Your task to perform on an android device: turn off picture-in-picture Image 0: 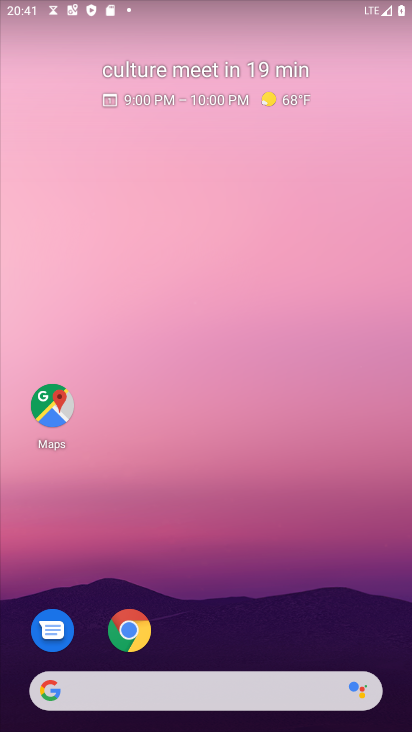
Step 0: click (133, 629)
Your task to perform on an android device: turn off picture-in-picture Image 1: 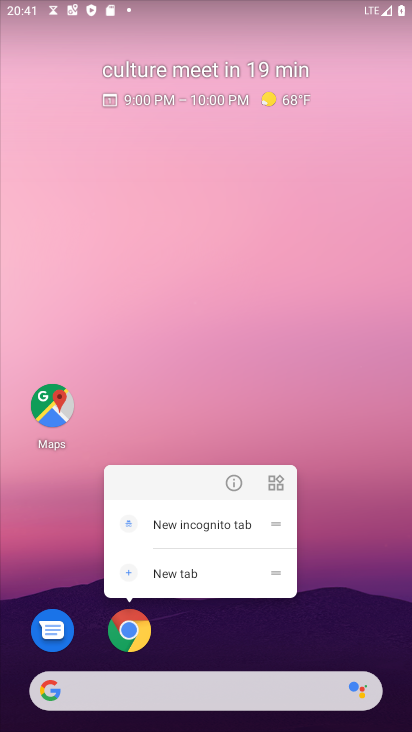
Step 1: click (231, 477)
Your task to perform on an android device: turn off picture-in-picture Image 2: 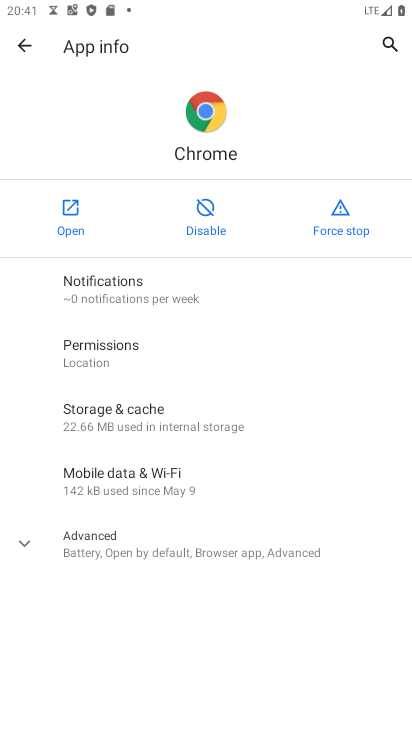
Step 2: click (169, 553)
Your task to perform on an android device: turn off picture-in-picture Image 3: 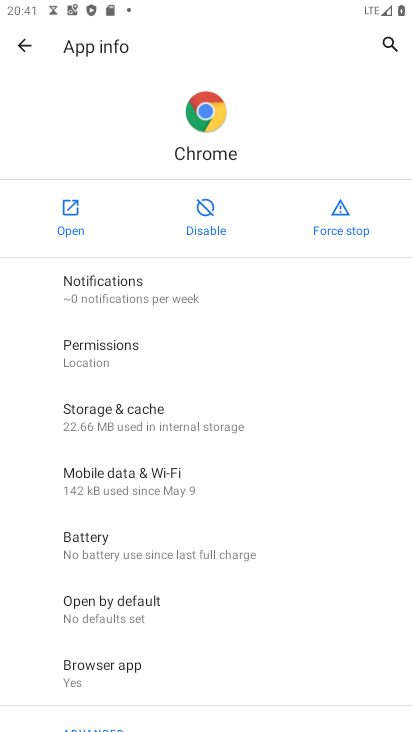
Step 3: drag from (173, 646) to (202, 511)
Your task to perform on an android device: turn off picture-in-picture Image 4: 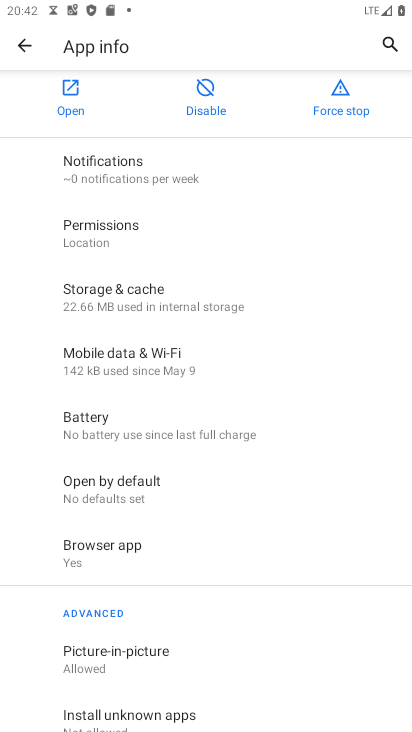
Step 4: click (162, 656)
Your task to perform on an android device: turn off picture-in-picture Image 5: 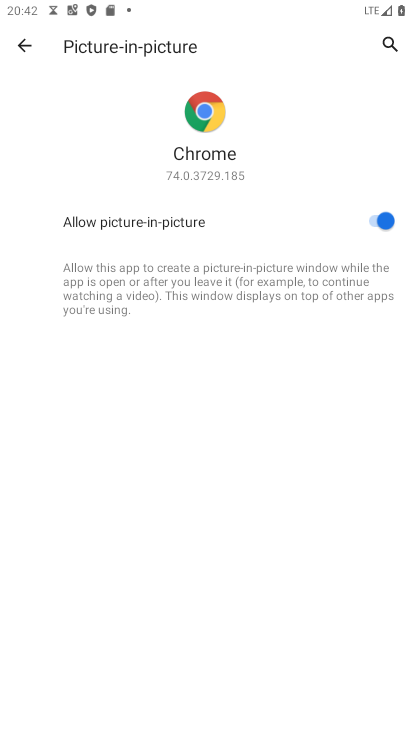
Step 5: click (393, 223)
Your task to perform on an android device: turn off picture-in-picture Image 6: 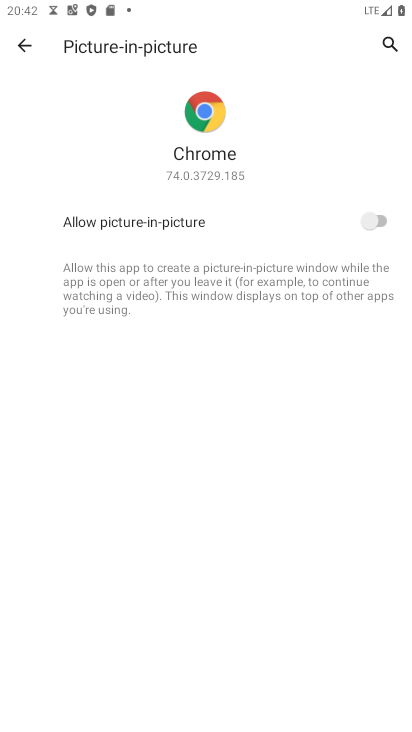
Step 6: task complete